Your task to perform on an android device: search for starred emails in the gmail app Image 0: 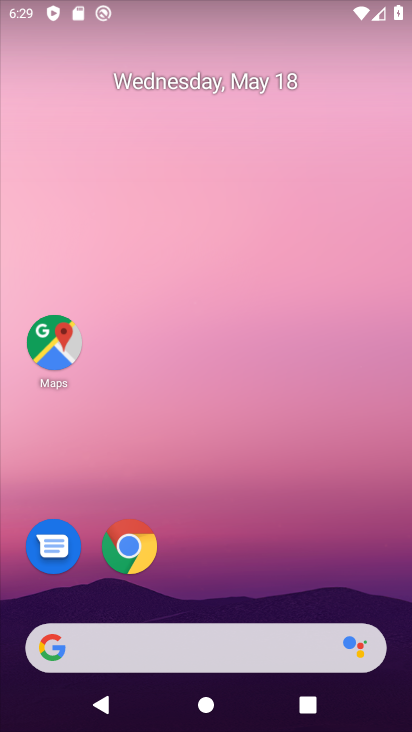
Step 0: drag from (361, 503) to (323, 0)
Your task to perform on an android device: search for starred emails in the gmail app Image 1: 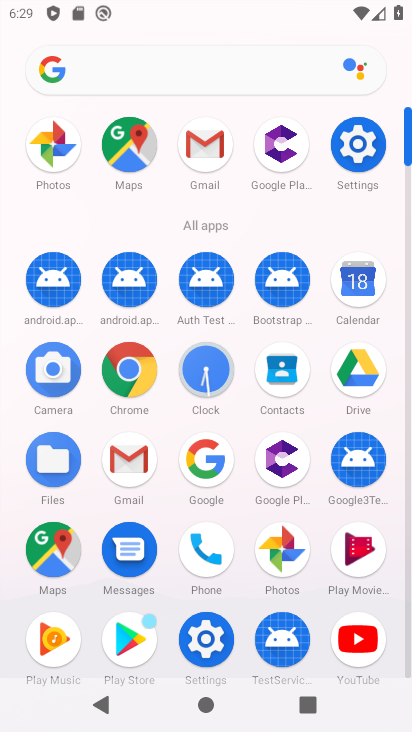
Step 1: click (120, 453)
Your task to perform on an android device: search for starred emails in the gmail app Image 2: 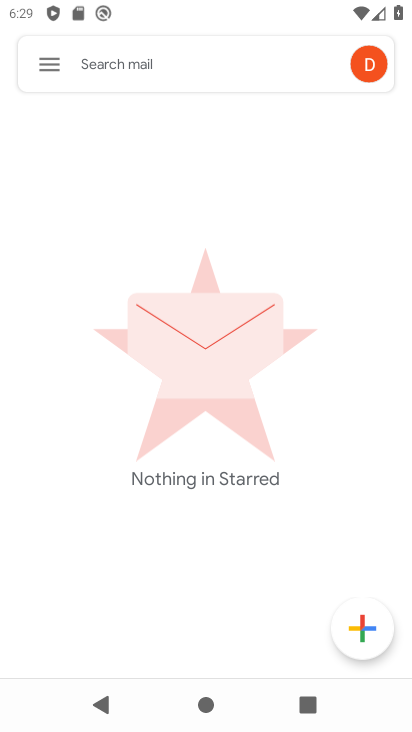
Step 2: click (53, 74)
Your task to perform on an android device: search for starred emails in the gmail app Image 3: 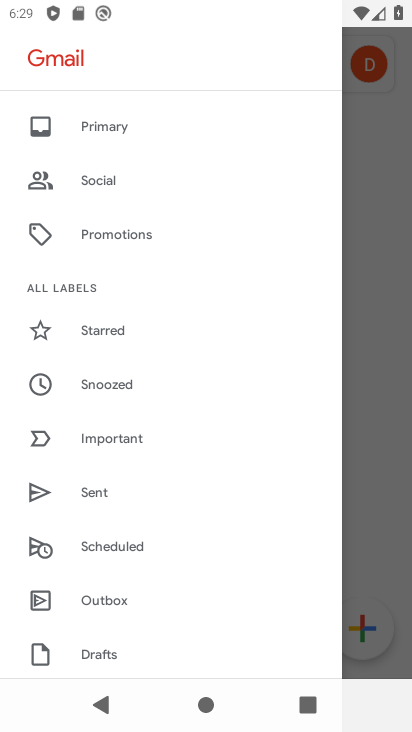
Step 3: click (124, 327)
Your task to perform on an android device: search for starred emails in the gmail app Image 4: 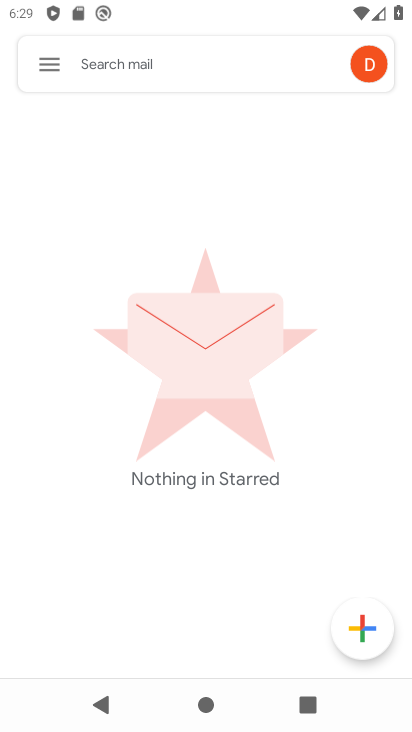
Step 4: task complete